Your task to perform on an android device: What is the news today? Image 0: 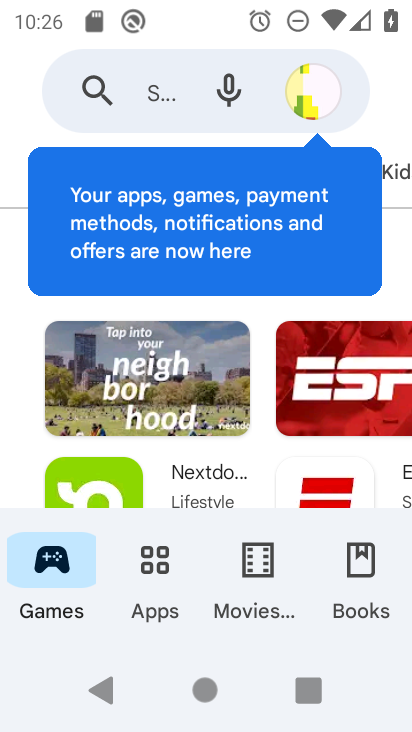
Step 0: press home button
Your task to perform on an android device: What is the news today? Image 1: 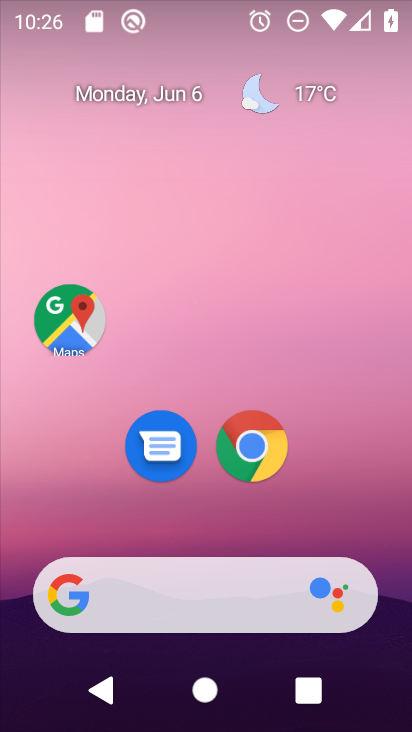
Step 1: click (198, 580)
Your task to perform on an android device: What is the news today? Image 2: 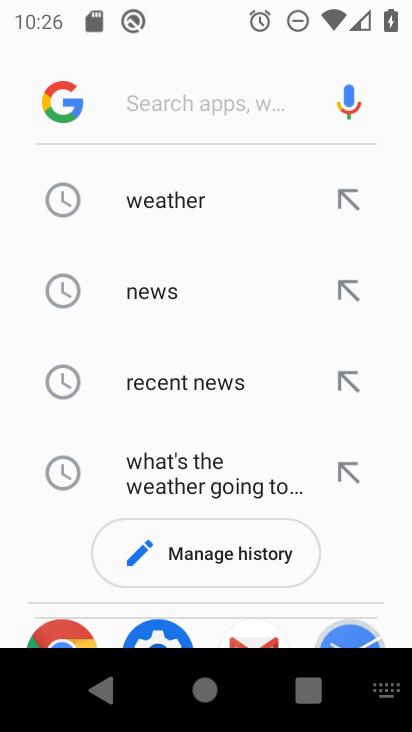
Step 2: click (151, 289)
Your task to perform on an android device: What is the news today? Image 3: 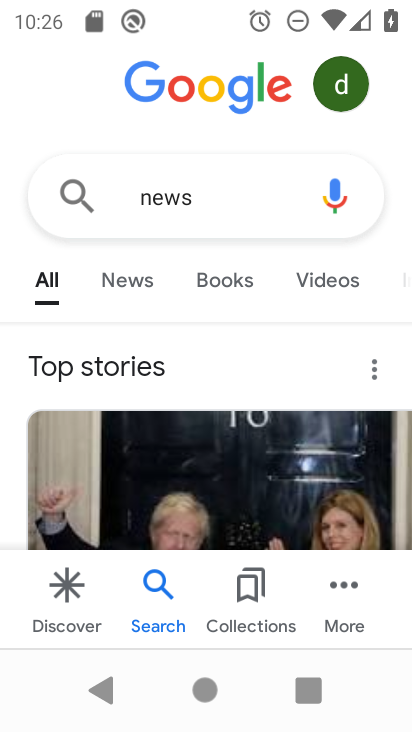
Step 3: task complete